Your task to perform on an android device: open app "Reddit" Image 0: 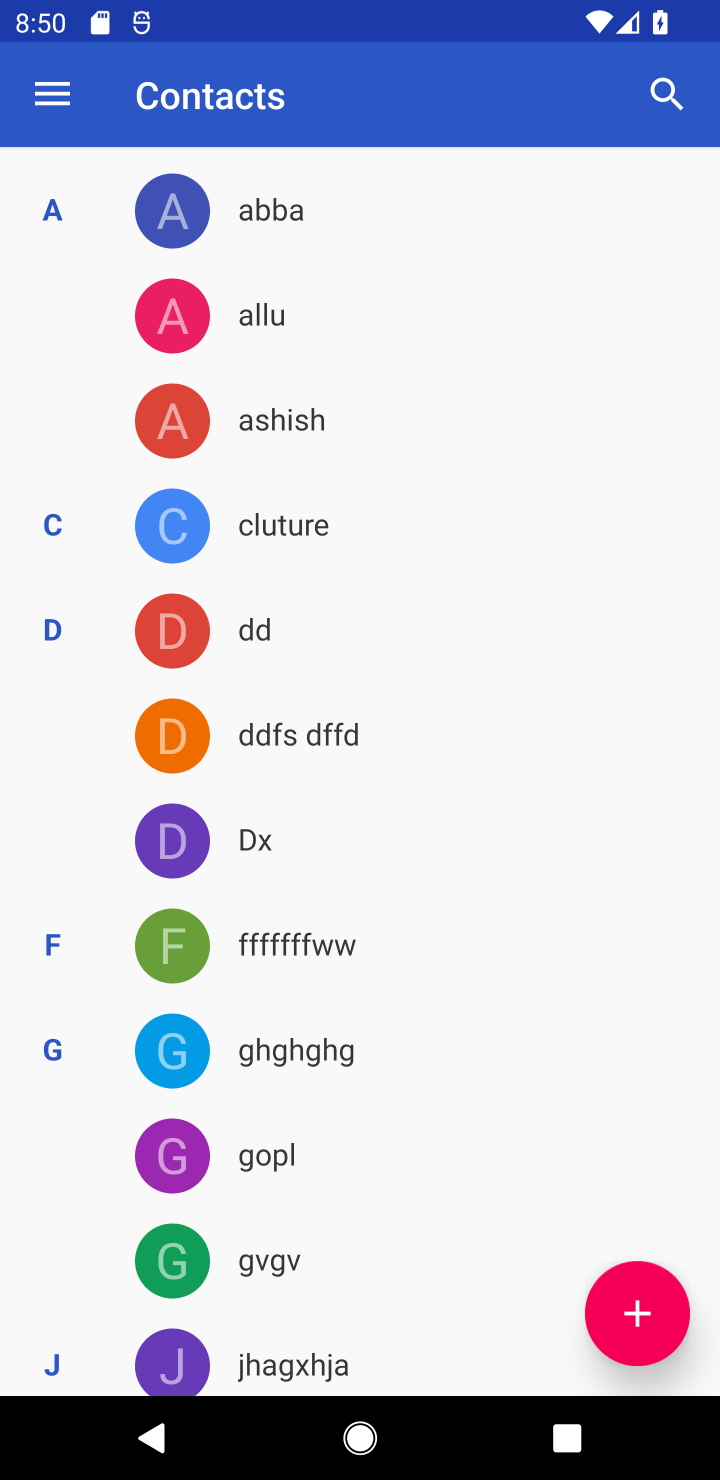
Step 0: press home button
Your task to perform on an android device: open app "Reddit" Image 1: 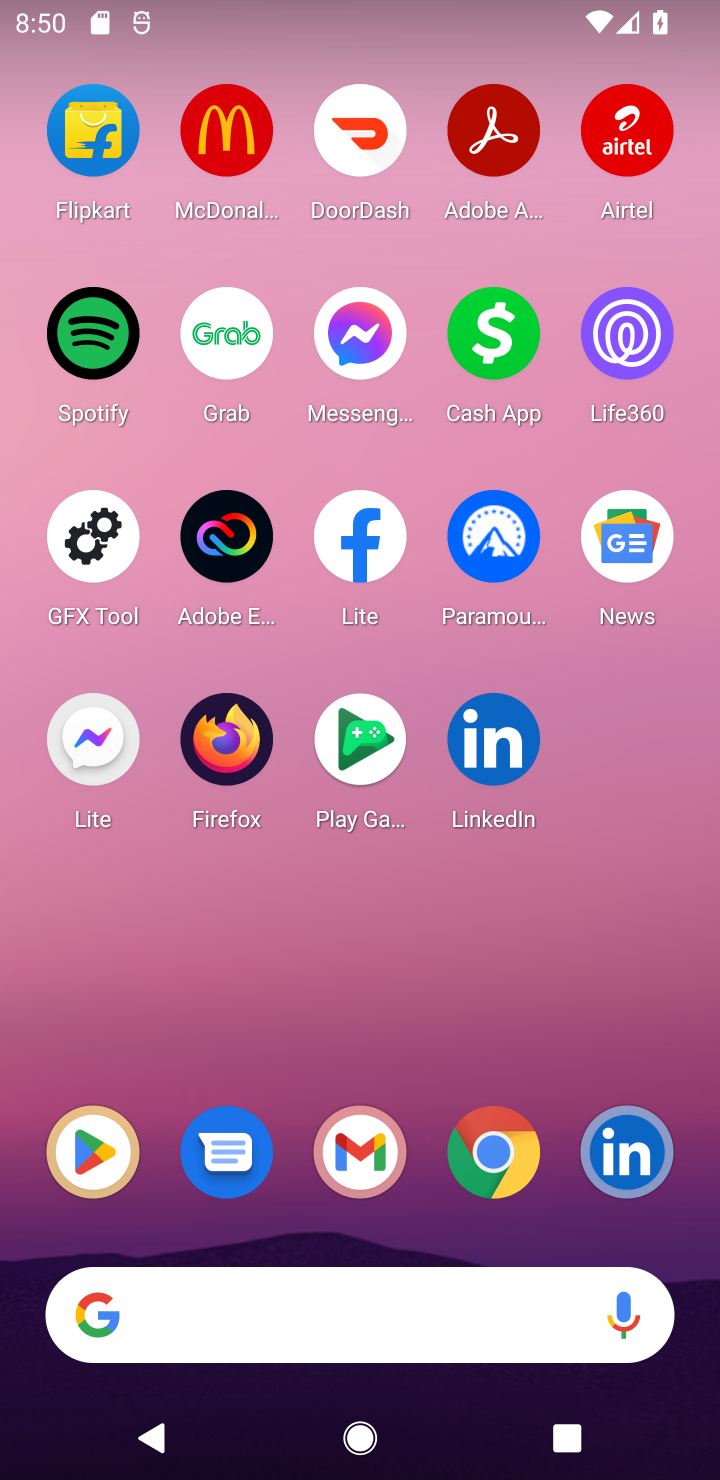
Step 1: click (78, 1147)
Your task to perform on an android device: open app "Reddit" Image 2: 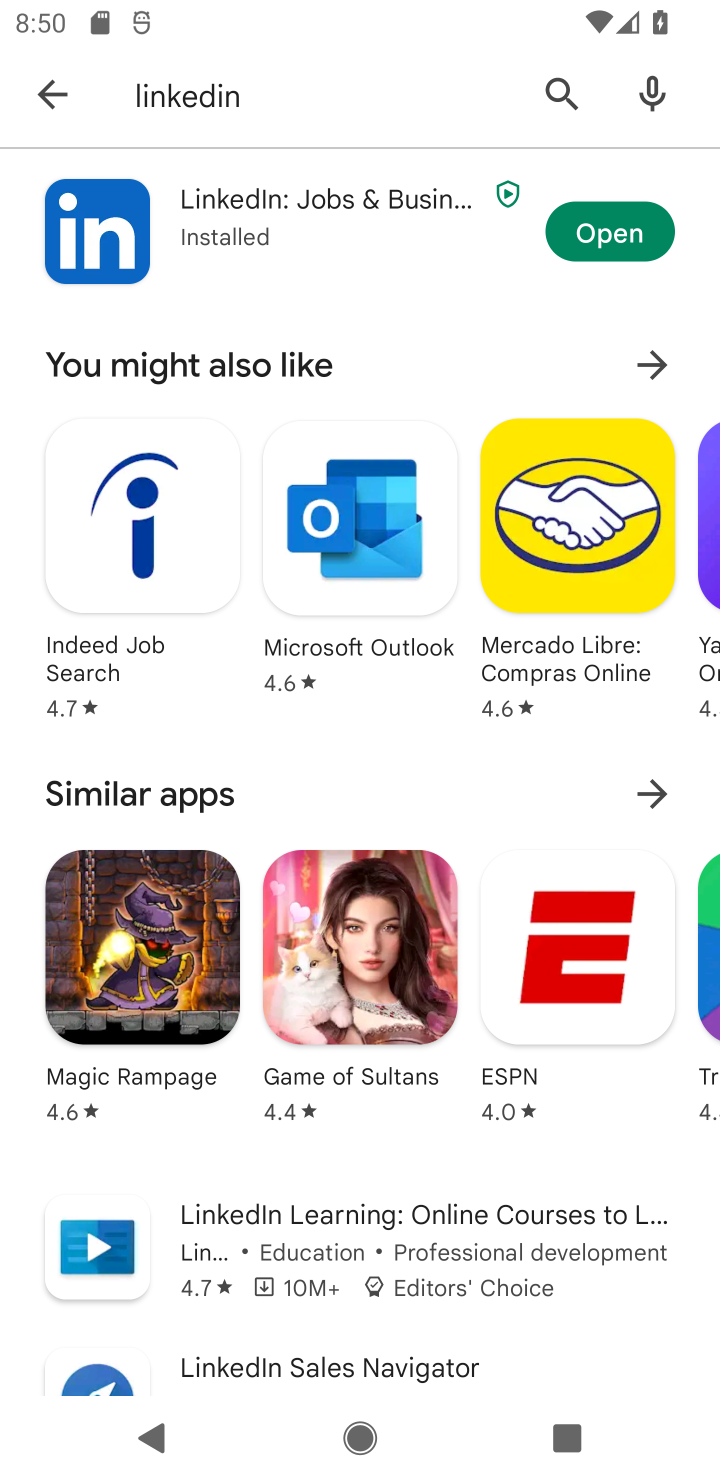
Step 2: click (55, 75)
Your task to perform on an android device: open app "Reddit" Image 3: 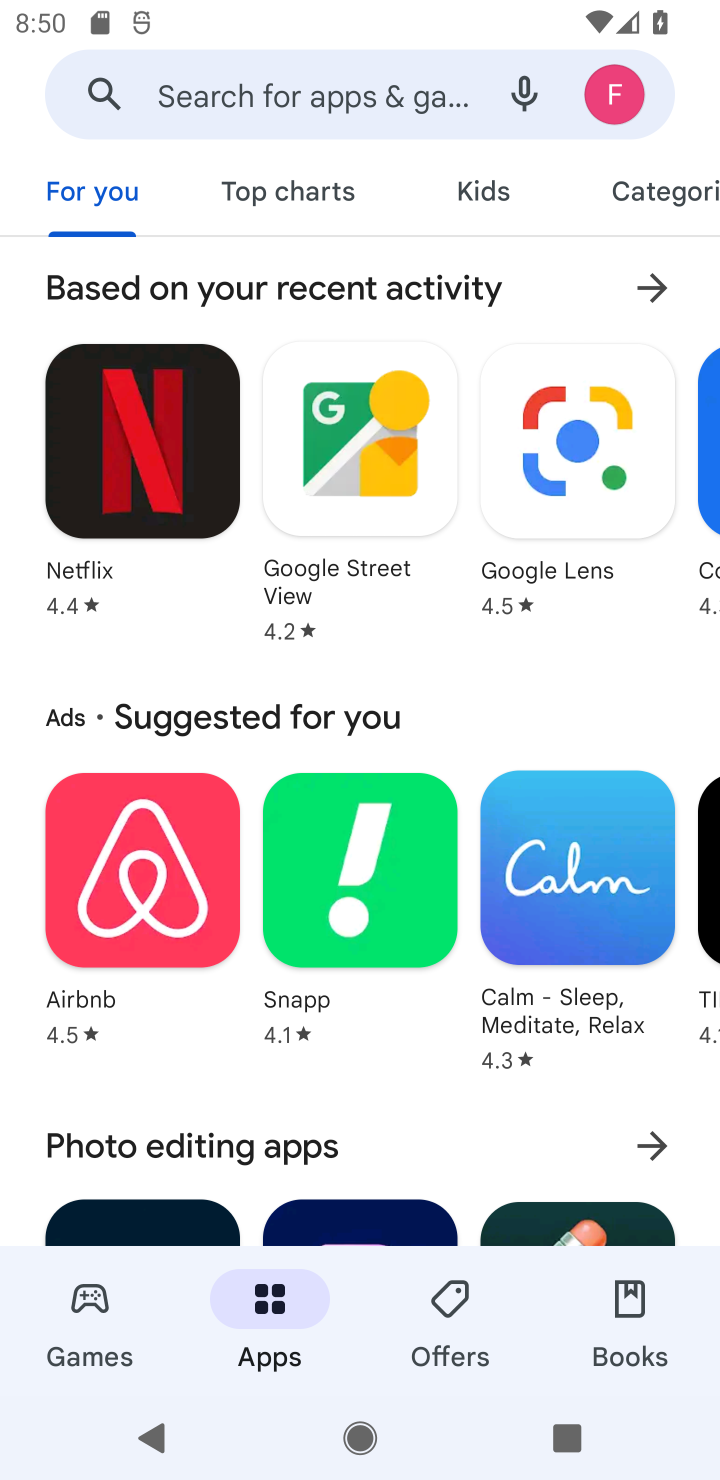
Step 3: click (253, 75)
Your task to perform on an android device: open app "Reddit" Image 4: 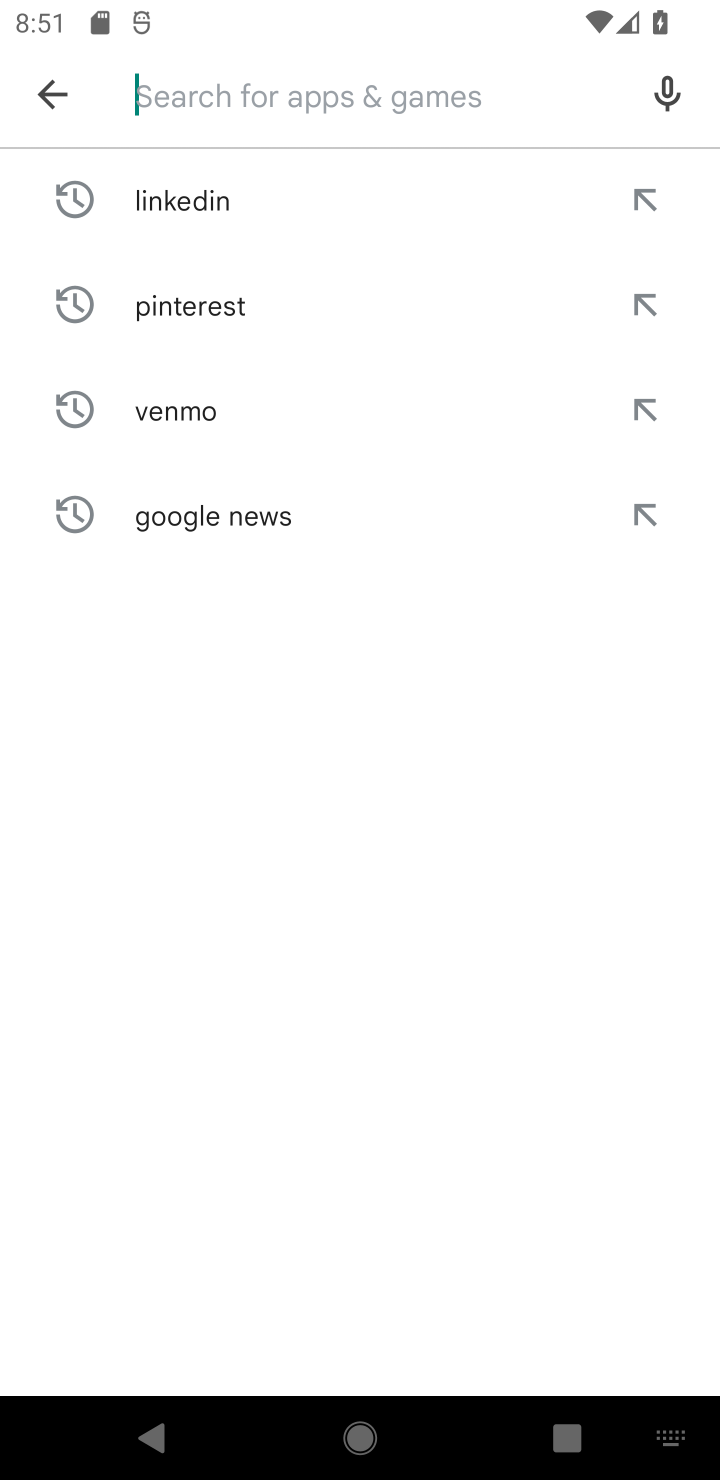
Step 4: type "Reddit"
Your task to perform on an android device: open app "Reddit" Image 5: 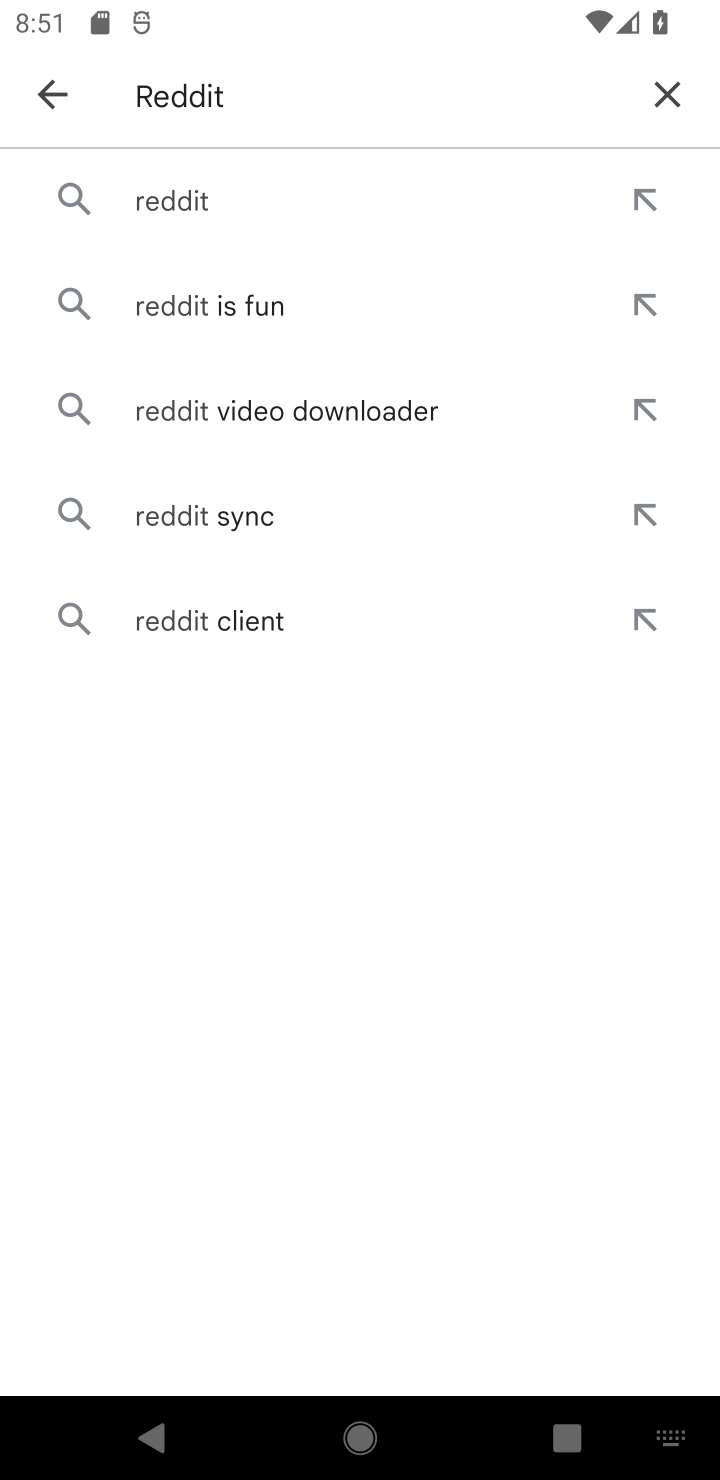
Step 5: click (181, 198)
Your task to perform on an android device: open app "Reddit" Image 6: 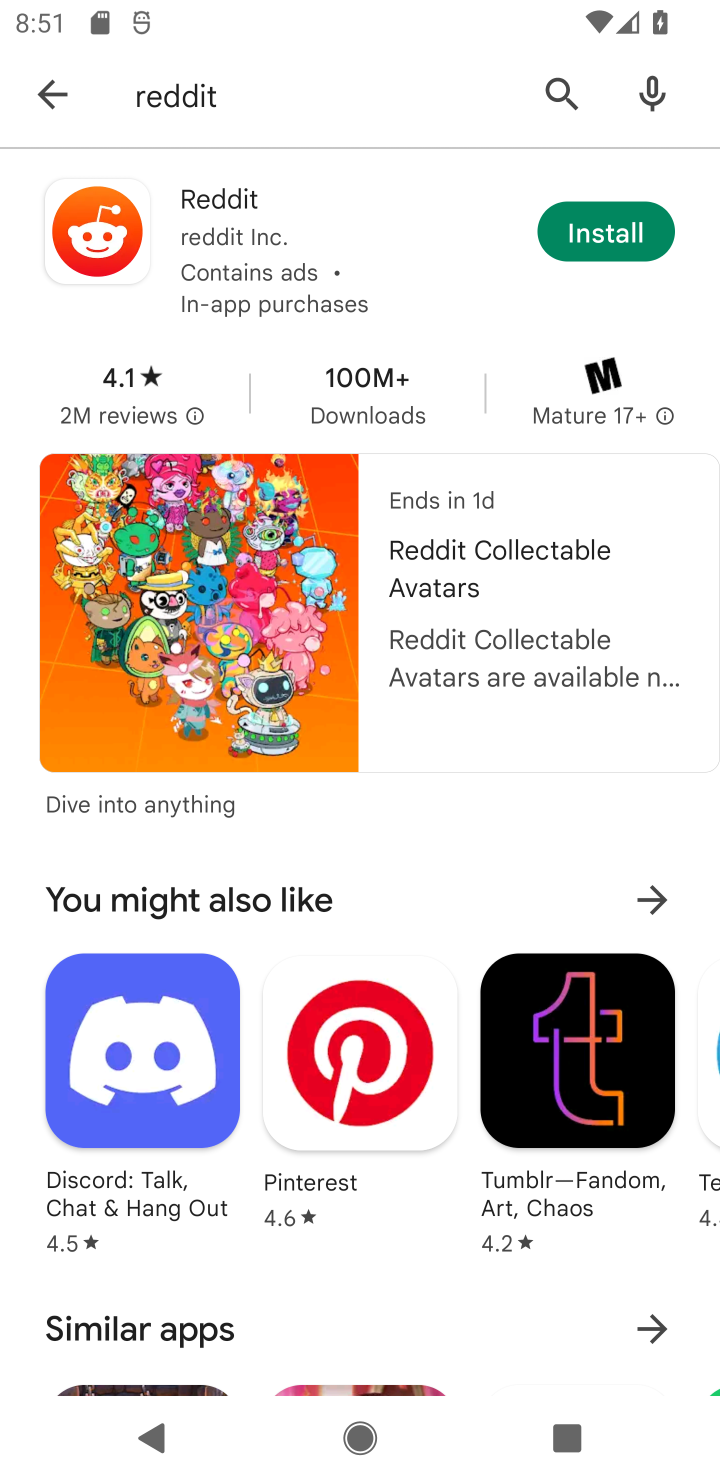
Step 6: click (583, 240)
Your task to perform on an android device: open app "Reddit" Image 7: 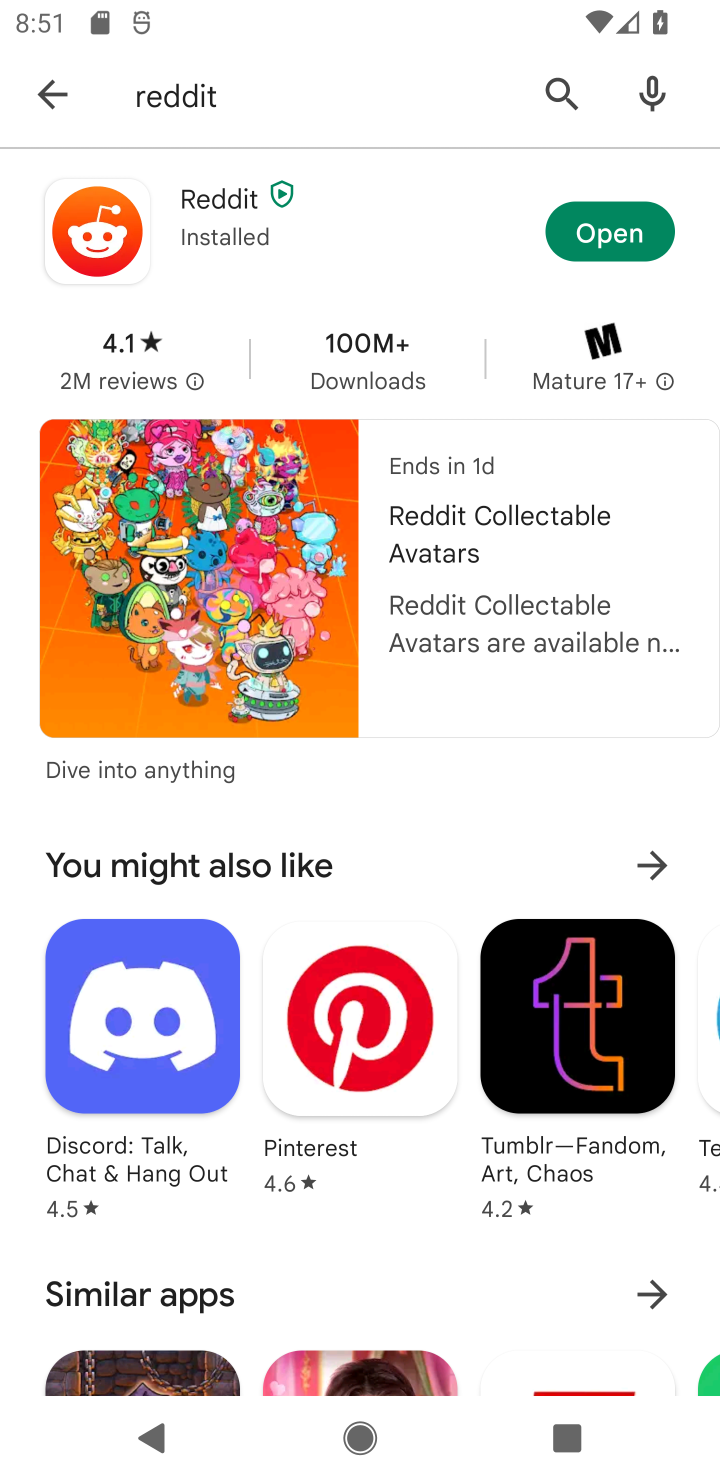
Step 7: click (598, 255)
Your task to perform on an android device: open app "Reddit" Image 8: 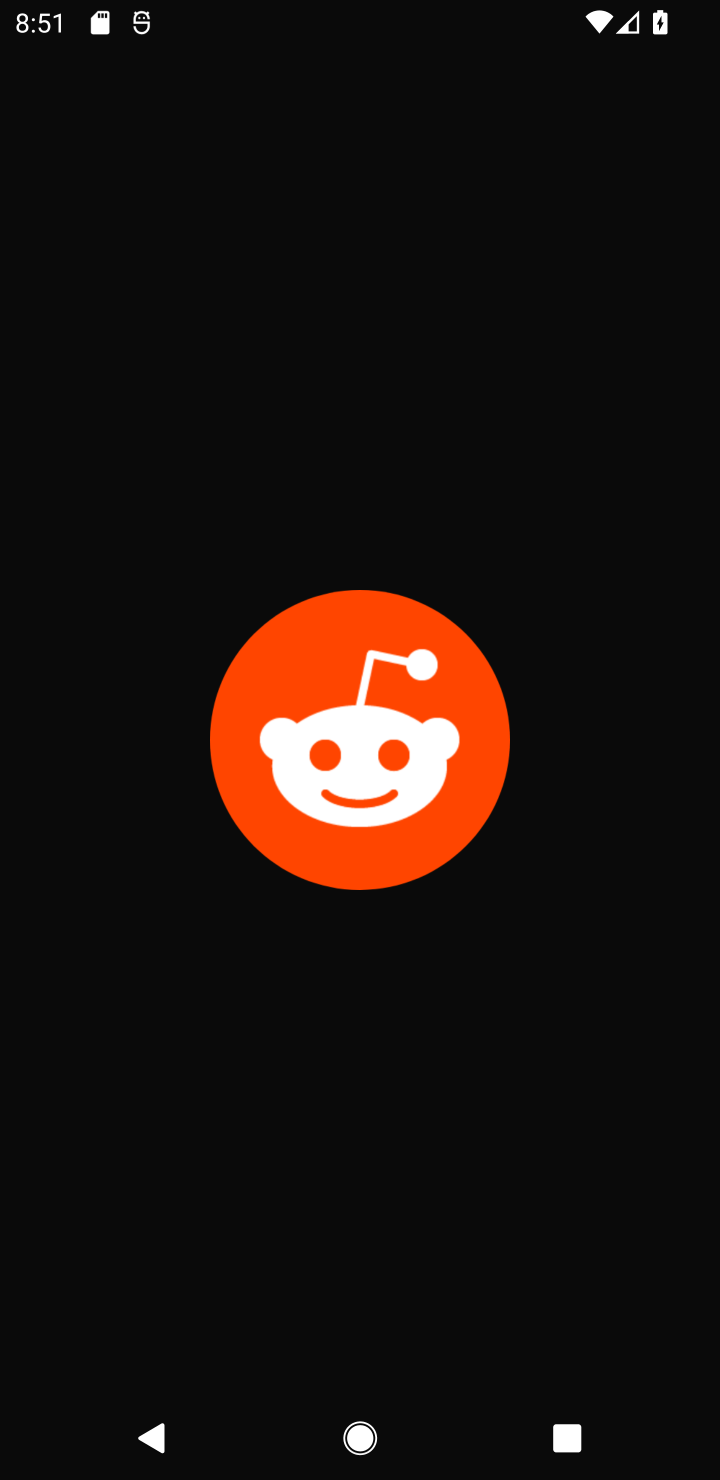
Step 8: task complete